Your task to perform on an android device: Open network settings Image 0: 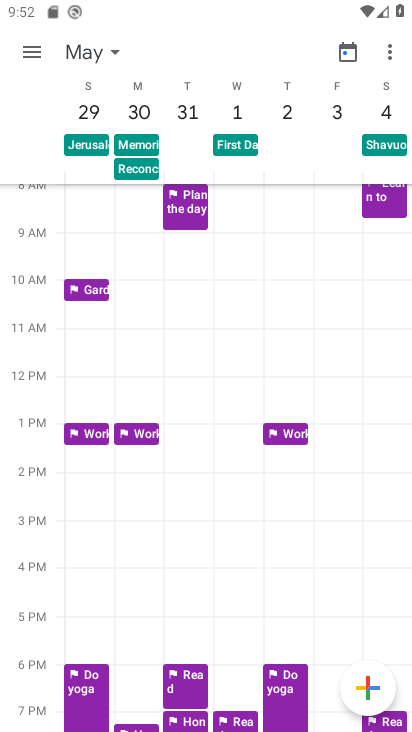
Step 0: press back button
Your task to perform on an android device: Open network settings Image 1: 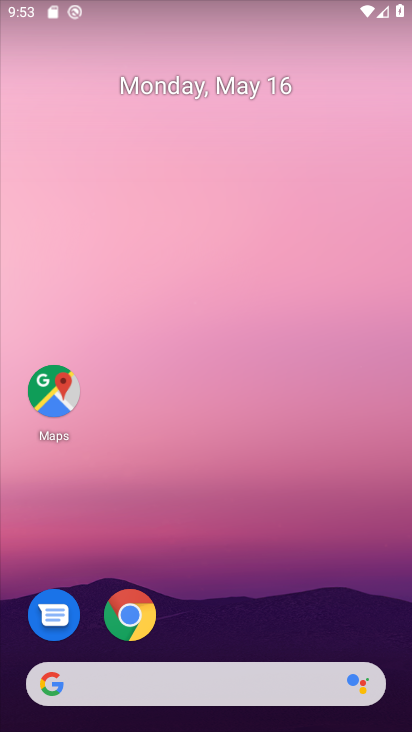
Step 1: drag from (241, 530) to (159, 17)
Your task to perform on an android device: Open network settings Image 2: 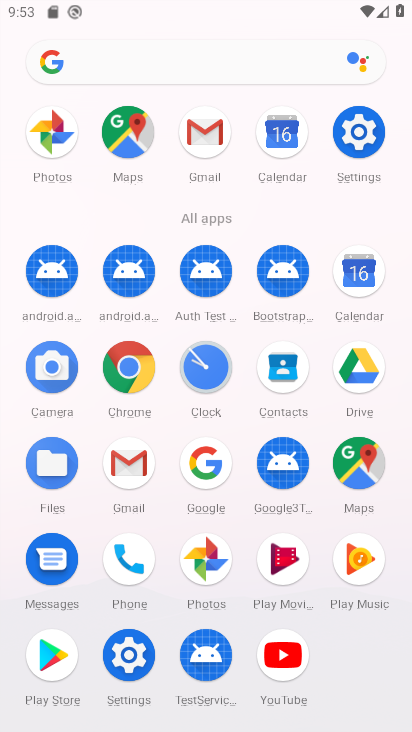
Step 2: click (356, 127)
Your task to perform on an android device: Open network settings Image 3: 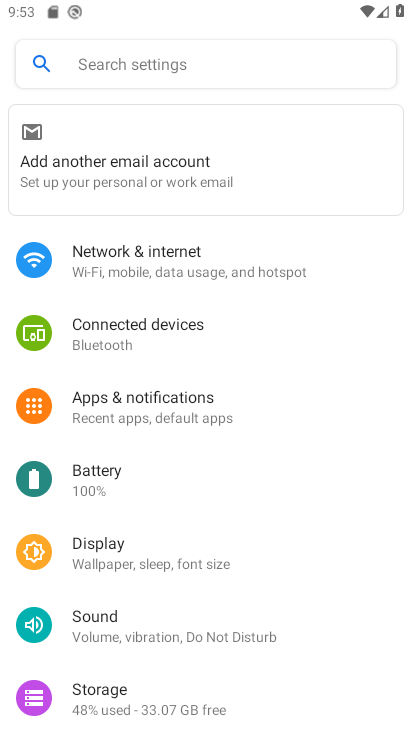
Step 3: click (186, 277)
Your task to perform on an android device: Open network settings Image 4: 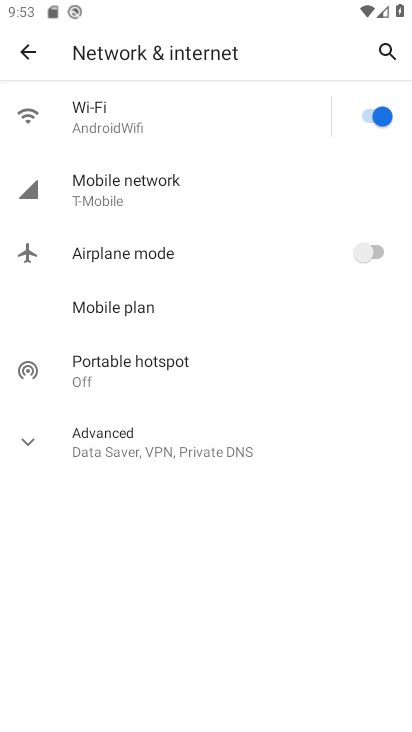
Step 4: click (44, 443)
Your task to perform on an android device: Open network settings Image 5: 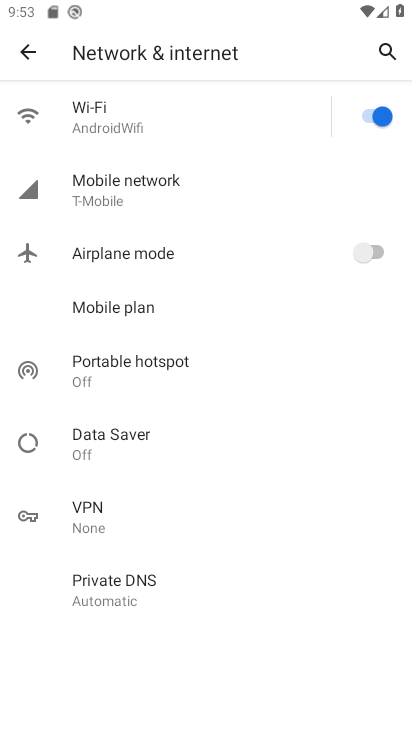
Step 5: task complete